Your task to perform on an android device: turn on sleep mode Image 0: 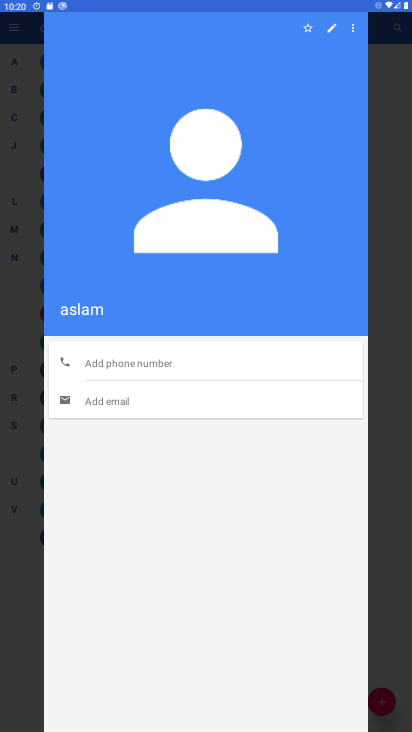
Step 0: press home button
Your task to perform on an android device: turn on sleep mode Image 1: 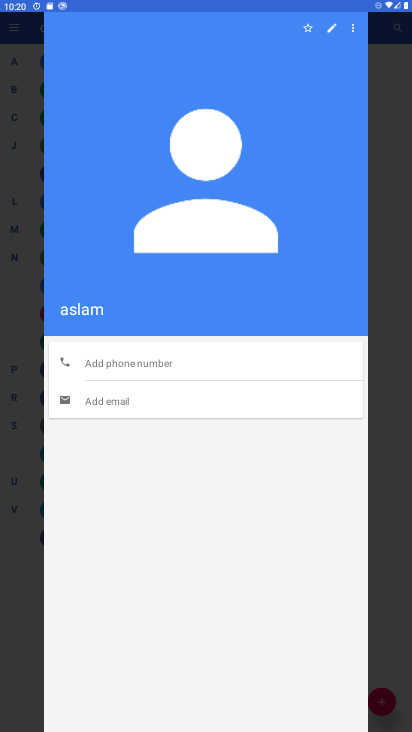
Step 1: drag from (366, 706) to (149, 51)
Your task to perform on an android device: turn on sleep mode Image 2: 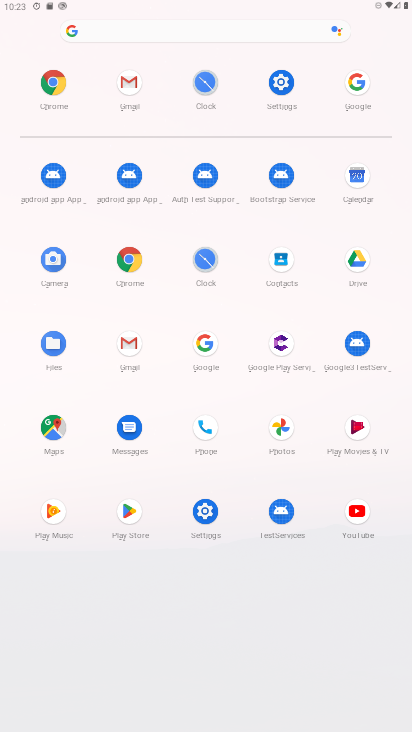
Step 2: click (205, 526)
Your task to perform on an android device: turn on sleep mode Image 3: 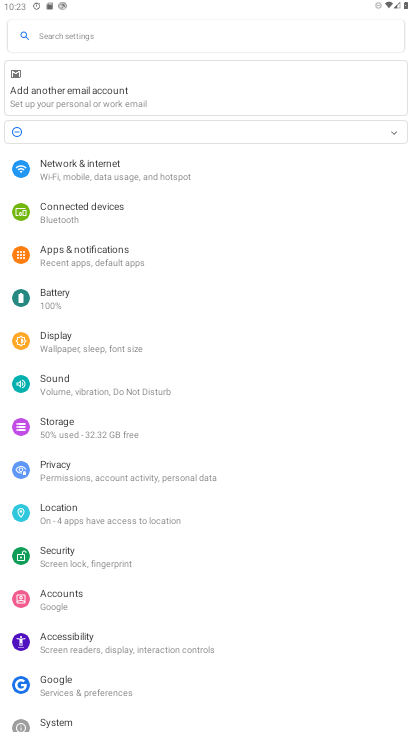
Step 3: task complete